Your task to perform on an android device: Open battery settings Image 0: 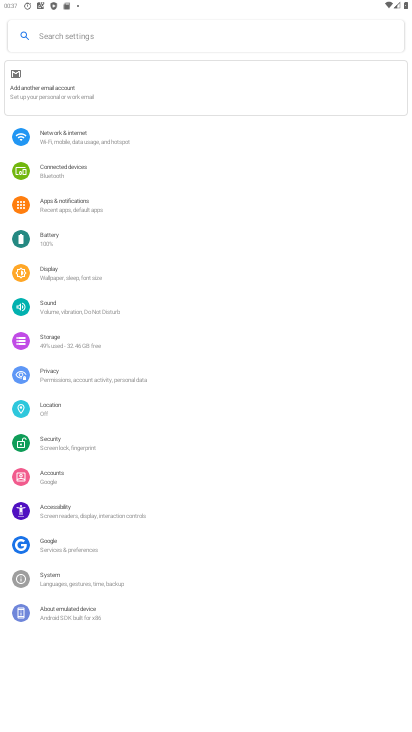
Step 0: press home button
Your task to perform on an android device: Open battery settings Image 1: 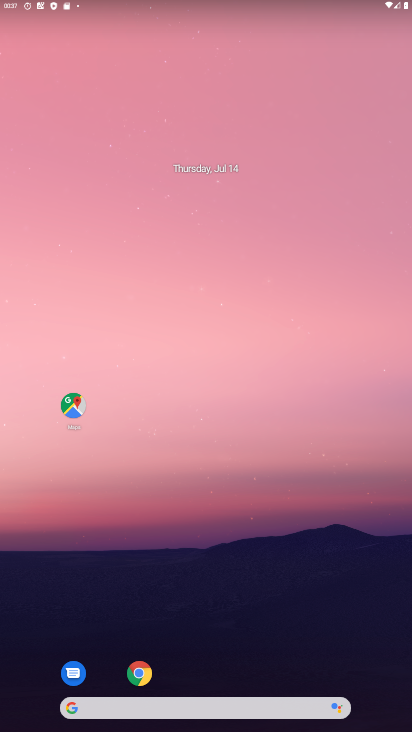
Step 1: drag from (222, 656) to (251, 126)
Your task to perform on an android device: Open battery settings Image 2: 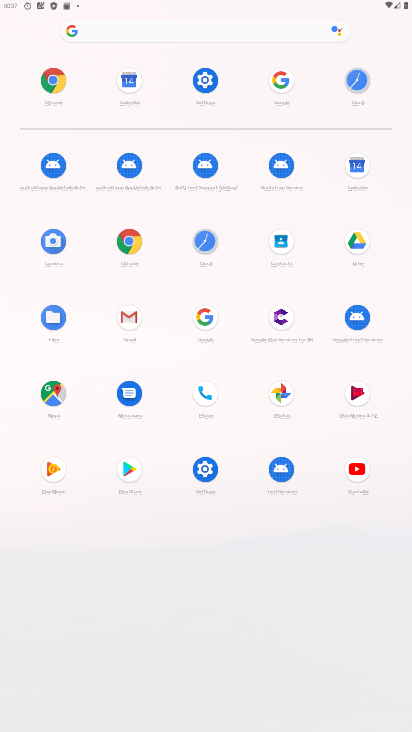
Step 2: click (199, 79)
Your task to perform on an android device: Open battery settings Image 3: 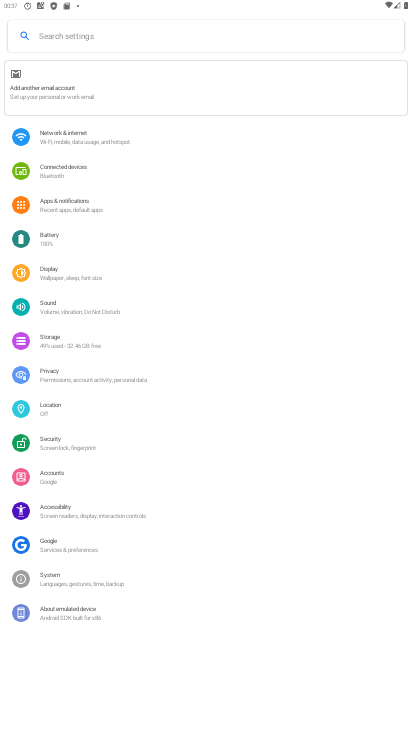
Step 3: click (77, 241)
Your task to perform on an android device: Open battery settings Image 4: 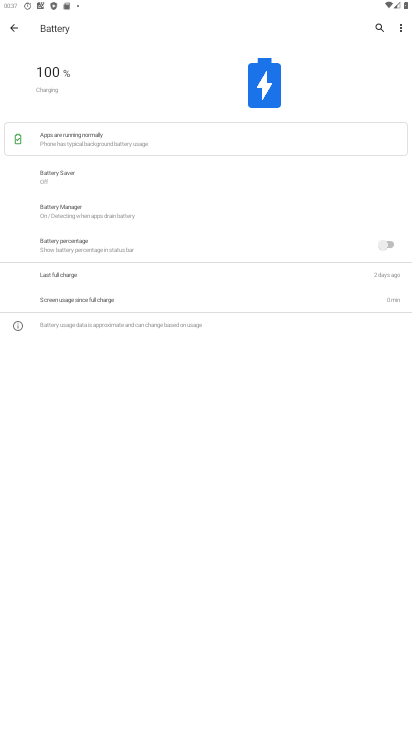
Step 4: task complete